Your task to perform on an android device: When is my next meeting? Image 0: 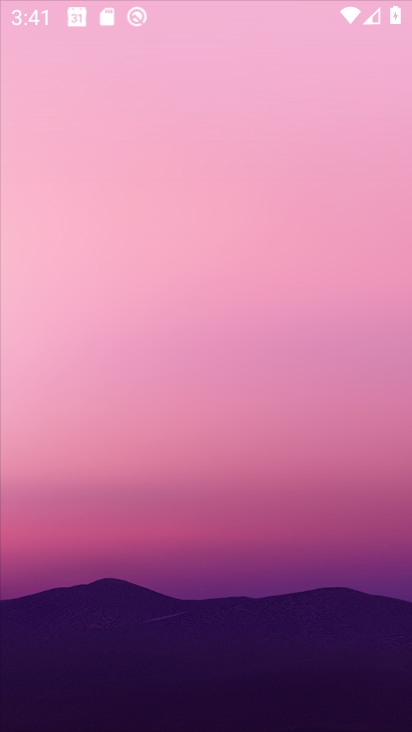
Step 0: press home button
Your task to perform on an android device: When is my next meeting? Image 1: 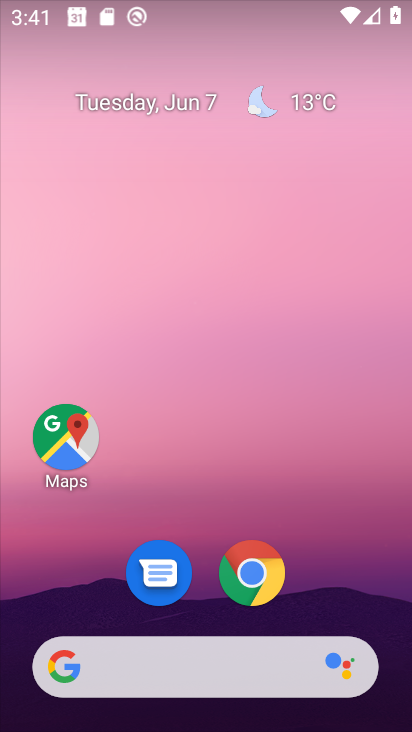
Step 1: drag from (322, 602) to (286, 96)
Your task to perform on an android device: When is my next meeting? Image 2: 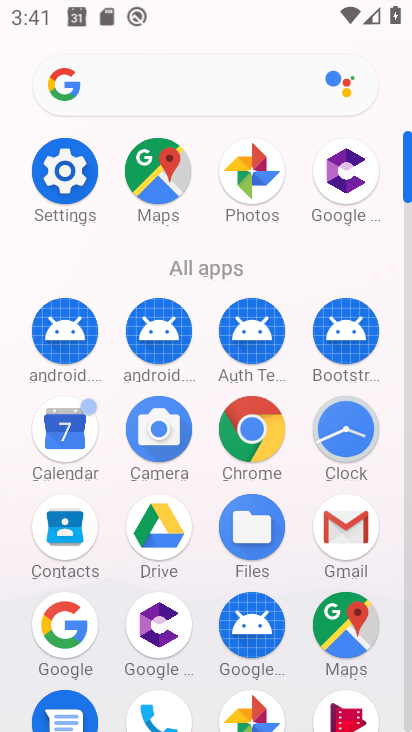
Step 2: press home button
Your task to perform on an android device: When is my next meeting? Image 3: 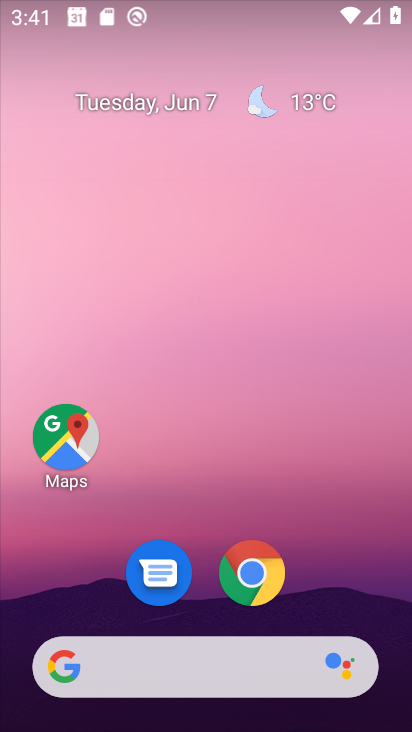
Step 3: press home button
Your task to perform on an android device: When is my next meeting? Image 4: 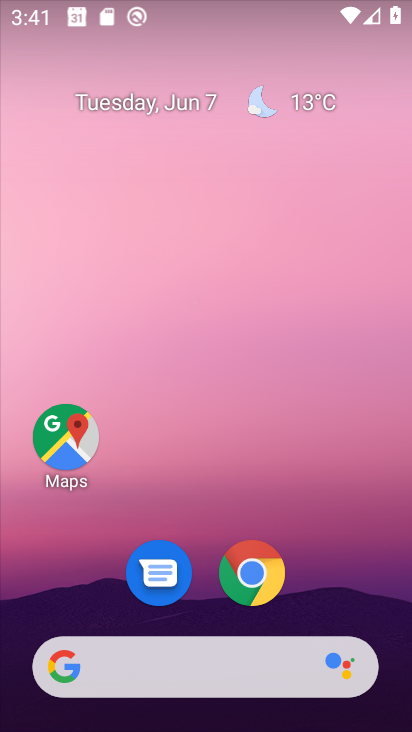
Step 4: drag from (379, 636) to (307, 280)
Your task to perform on an android device: When is my next meeting? Image 5: 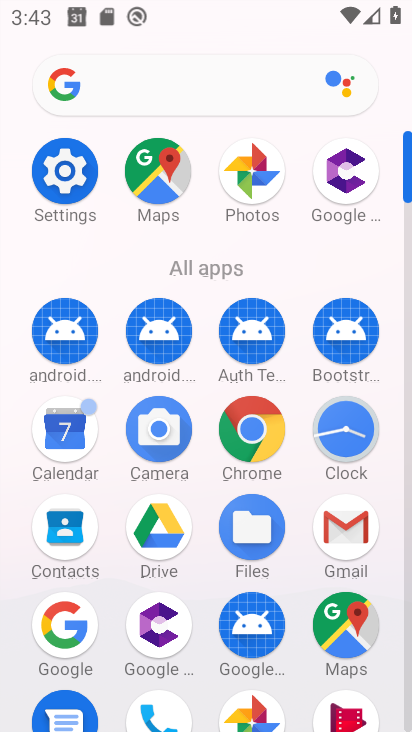
Step 5: drag from (293, 625) to (253, 410)
Your task to perform on an android device: When is my next meeting? Image 6: 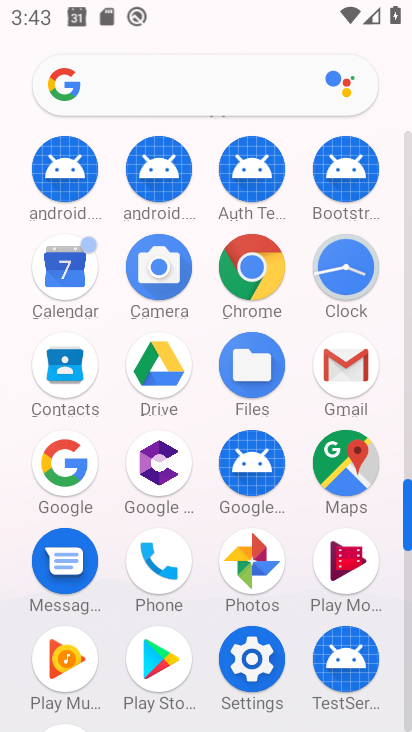
Step 6: click (55, 260)
Your task to perform on an android device: When is my next meeting? Image 7: 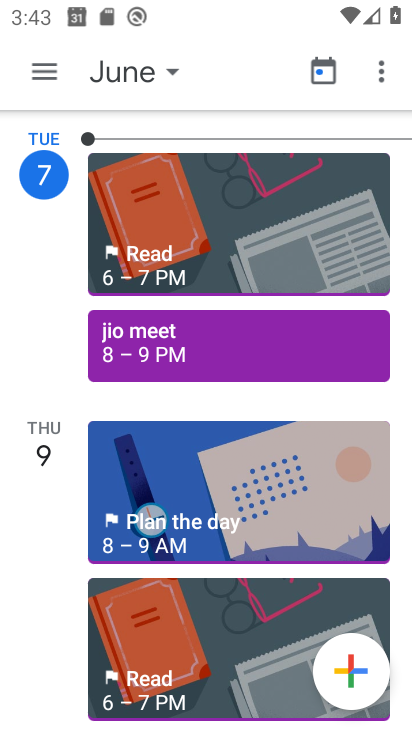
Step 7: click (162, 82)
Your task to perform on an android device: When is my next meeting? Image 8: 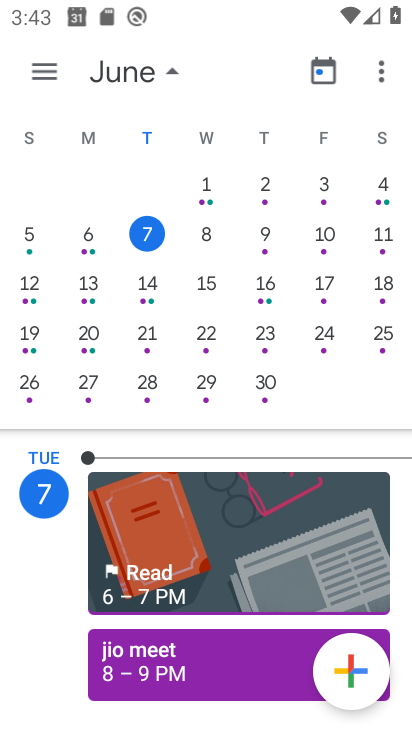
Step 8: click (159, 79)
Your task to perform on an android device: When is my next meeting? Image 9: 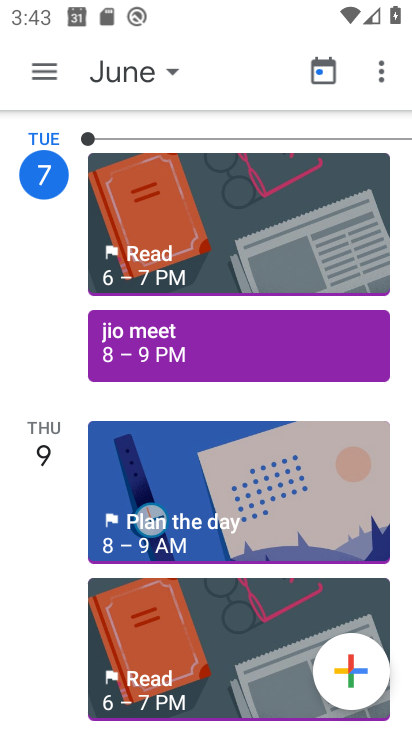
Step 9: task complete